Your task to perform on an android device: open wifi settings Image 0: 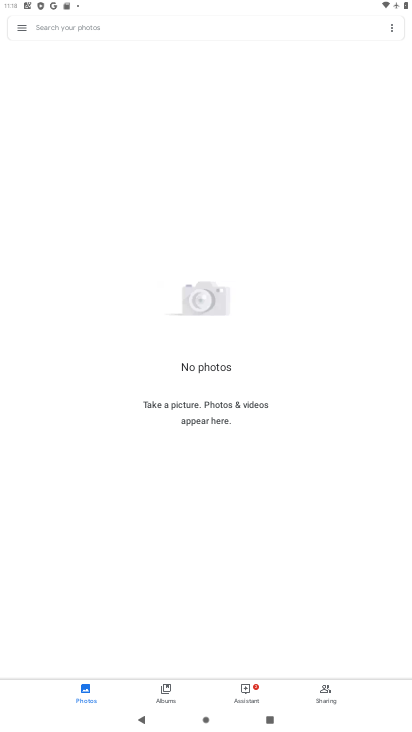
Step 0: press home button
Your task to perform on an android device: open wifi settings Image 1: 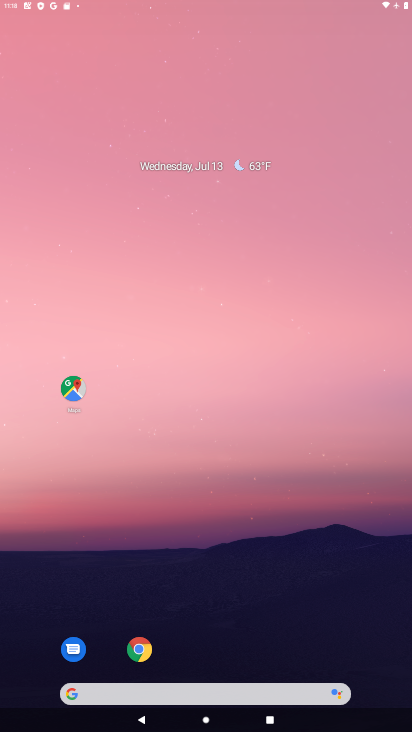
Step 1: drag from (293, 591) to (290, 136)
Your task to perform on an android device: open wifi settings Image 2: 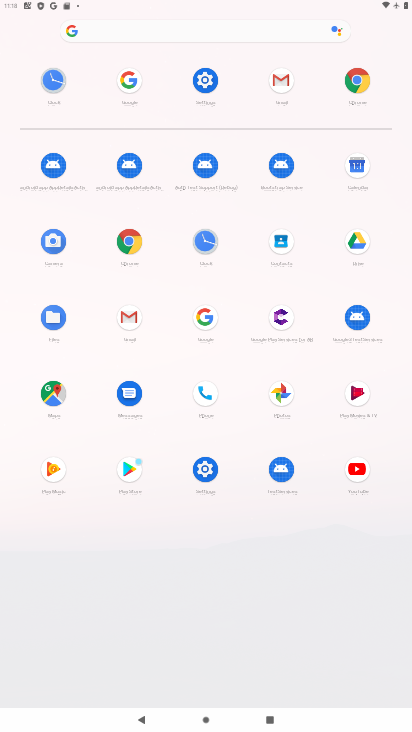
Step 2: click (208, 66)
Your task to perform on an android device: open wifi settings Image 3: 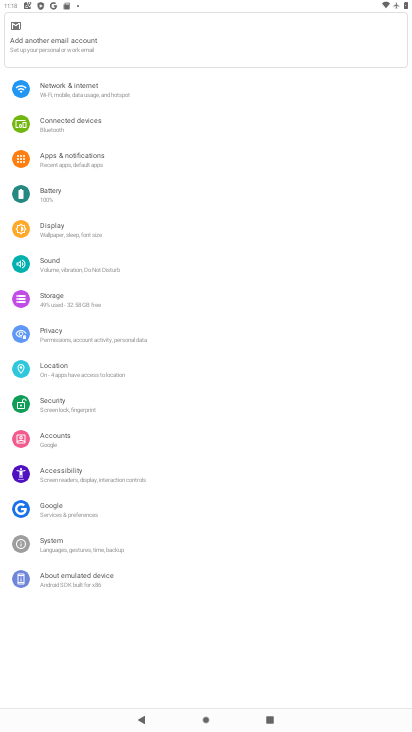
Step 3: click (74, 73)
Your task to perform on an android device: open wifi settings Image 4: 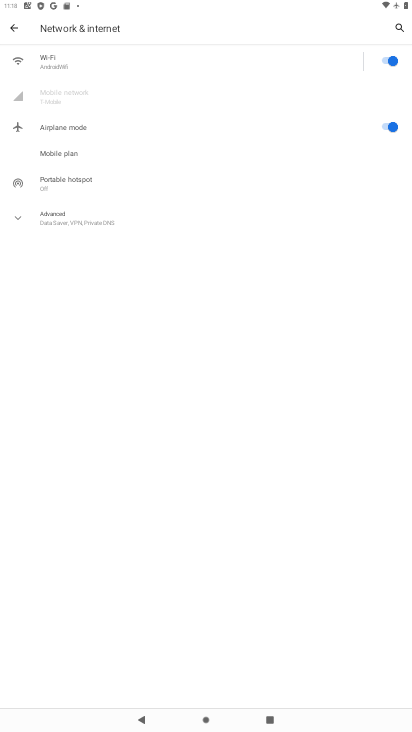
Step 4: click (144, 54)
Your task to perform on an android device: open wifi settings Image 5: 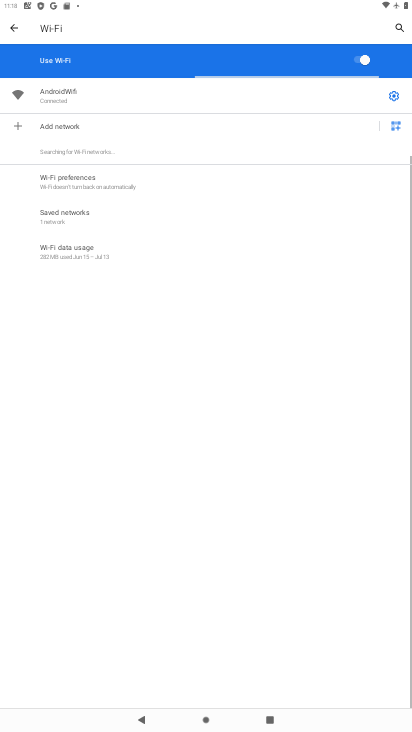
Step 5: task complete